Your task to perform on an android device: Open Android settings Image 0: 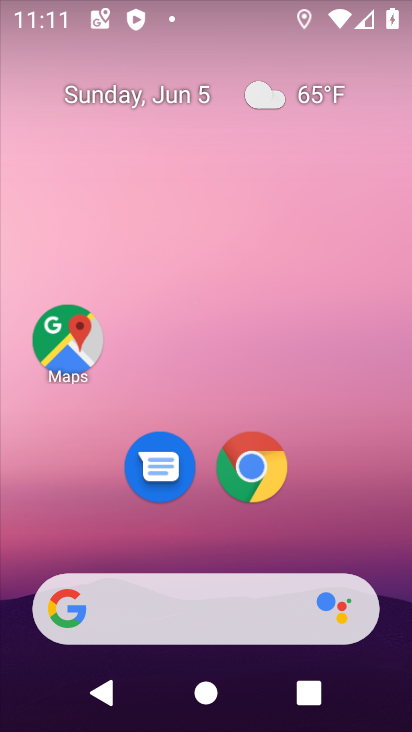
Step 0: press home button
Your task to perform on an android device: Open Android settings Image 1: 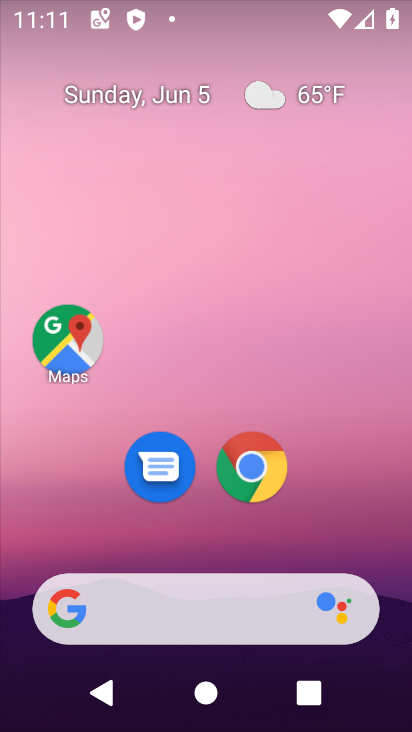
Step 1: drag from (377, 519) to (304, 5)
Your task to perform on an android device: Open Android settings Image 2: 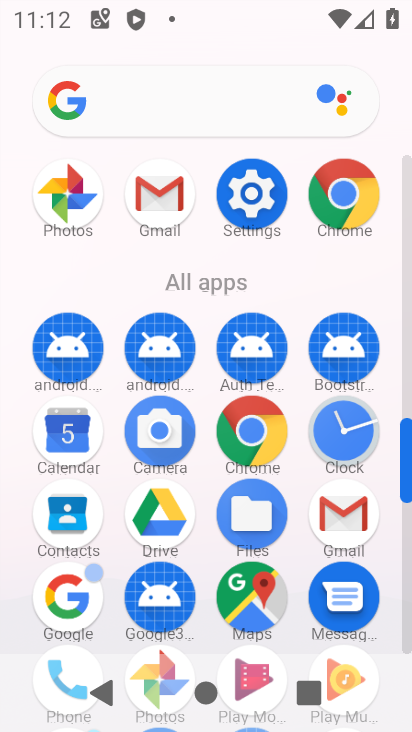
Step 2: drag from (292, 575) to (243, 312)
Your task to perform on an android device: Open Android settings Image 3: 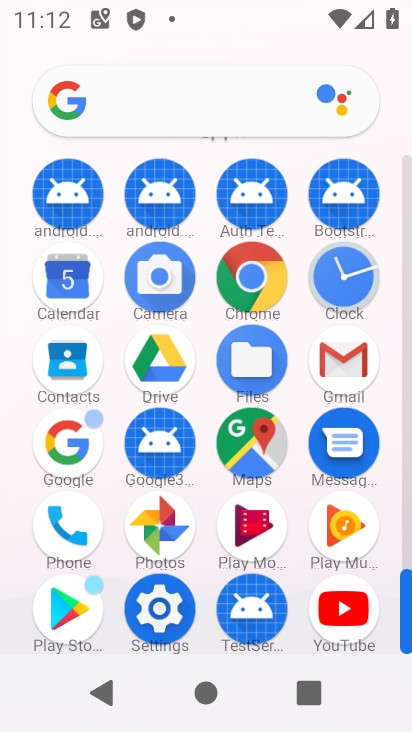
Step 3: click (146, 594)
Your task to perform on an android device: Open Android settings Image 4: 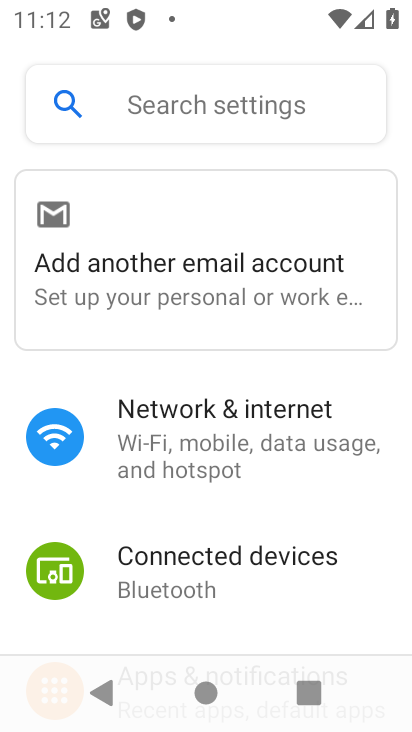
Step 4: drag from (286, 551) to (253, 304)
Your task to perform on an android device: Open Android settings Image 5: 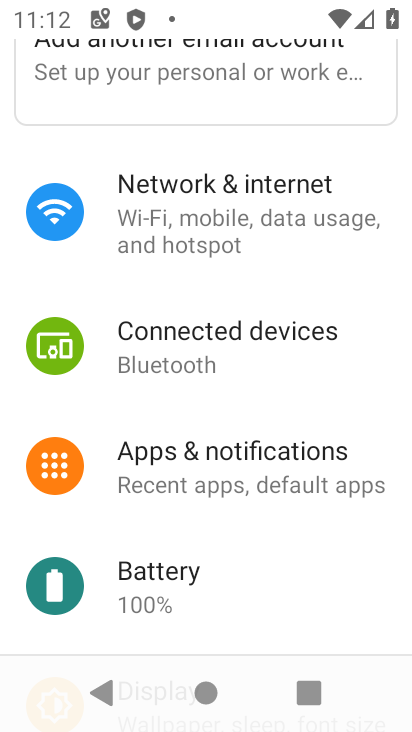
Step 5: drag from (208, 423) to (213, 480)
Your task to perform on an android device: Open Android settings Image 6: 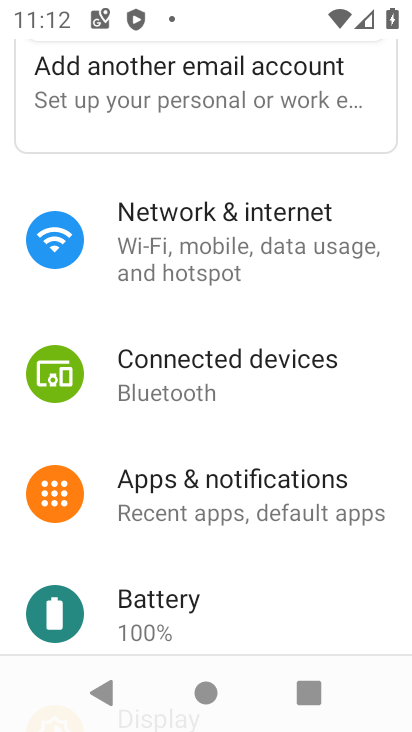
Step 6: drag from (230, 517) to (212, 372)
Your task to perform on an android device: Open Android settings Image 7: 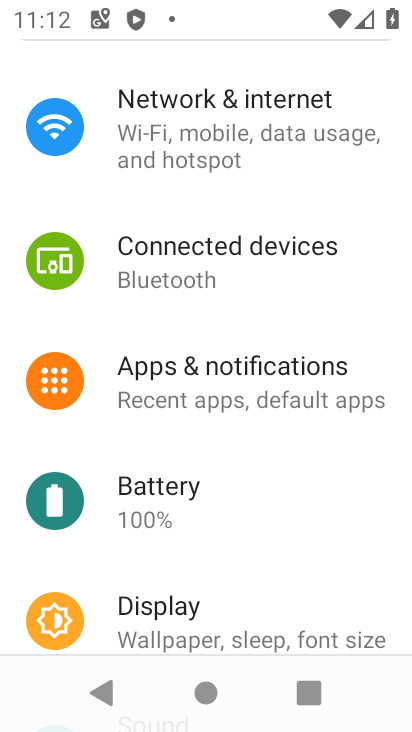
Step 7: click (117, 503)
Your task to perform on an android device: Open Android settings Image 8: 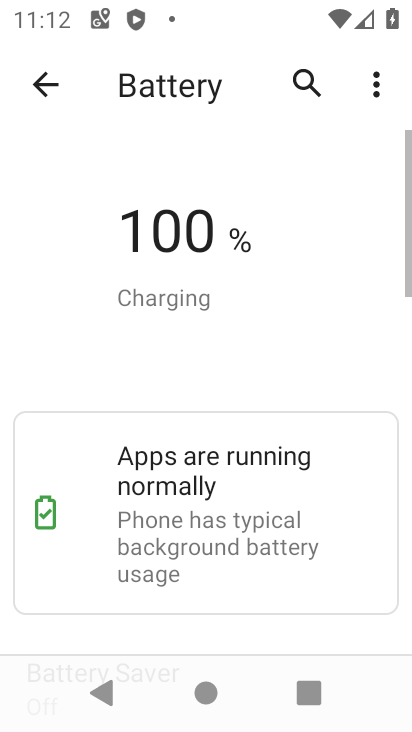
Step 8: click (38, 76)
Your task to perform on an android device: Open Android settings Image 9: 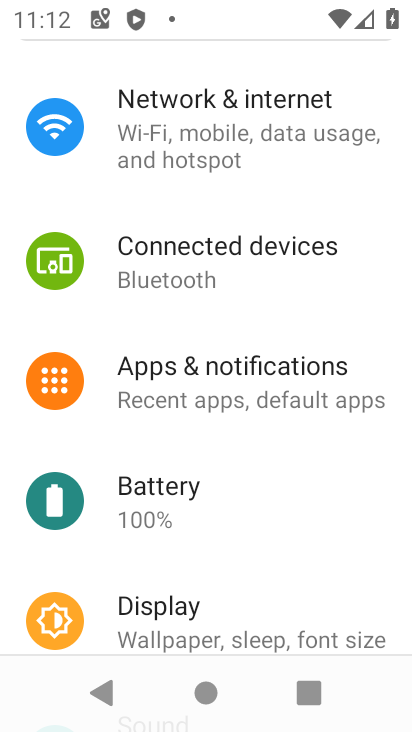
Step 9: drag from (366, 570) to (307, 9)
Your task to perform on an android device: Open Android settings Image 10: 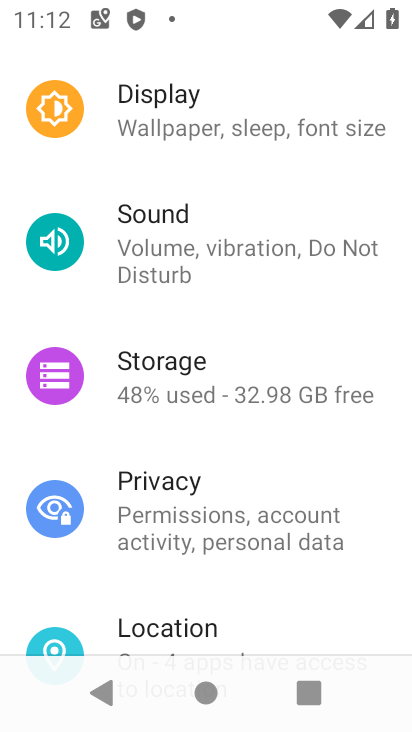
Step 10: drag from (307, 574) to (290, 321)
Your task to perform on an android device: Open Android settings Image 11: 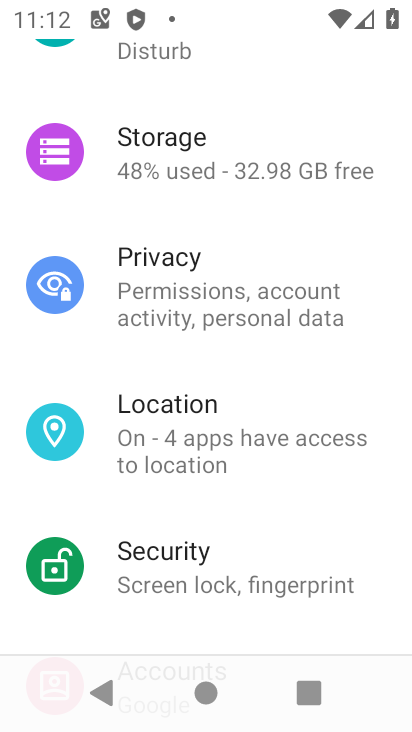
Step 11: drag from (270, 523) to (283, 314)
Your task to perform on an android device: Open Android settings Image 12: 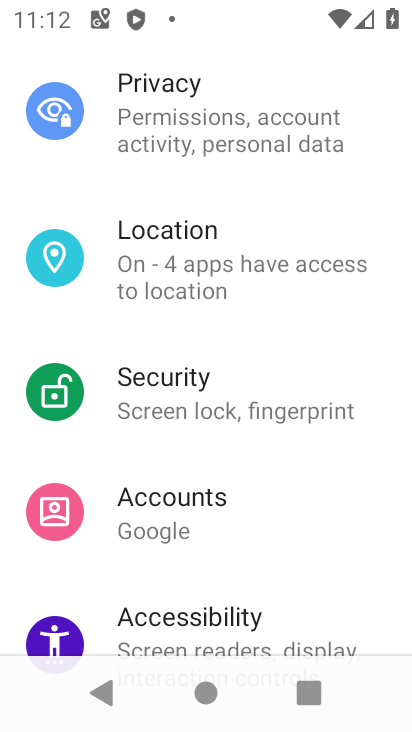
Step 12: drag from (240, 481) to (270, 308)
Your task to perform on an android device: Open Android settings Image 13: 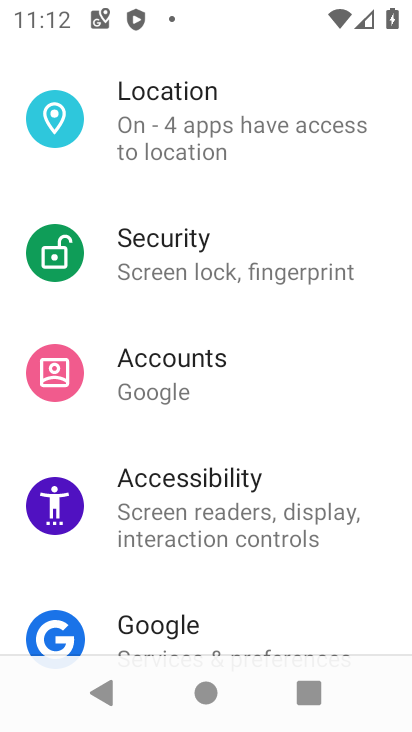
Step 13: drag from (145, 540) to (222, 414)
Your task to perform on an android device: Open Android settings Image 14: 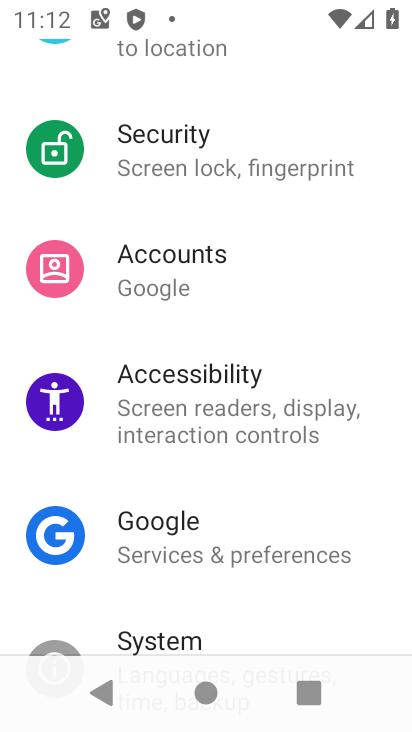
Step 14: drag from (137, 668) to (222, 303)
Your task to perform on an android device: Open Android settings Image 15: 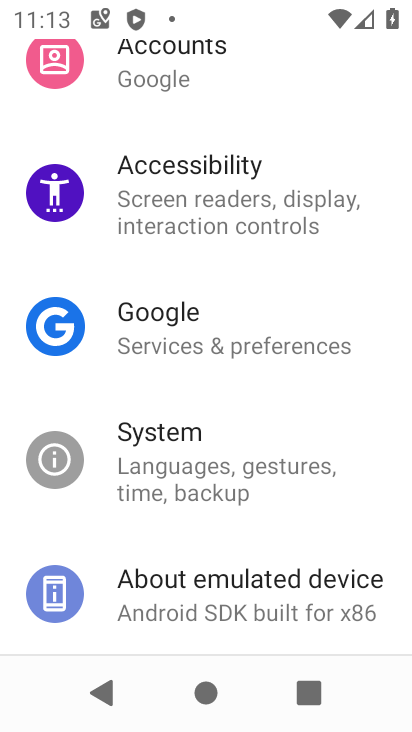
Step 15: click (131, 603)
Your task to perform on an android device: Open Android settings Image 16: 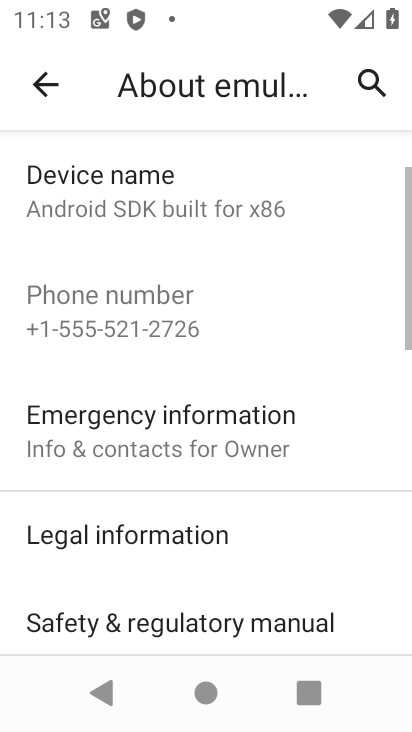
Step 16: drag from (181, 573) to (270, 197)
Your task to perform on an android device: Open Android settings Image 17: 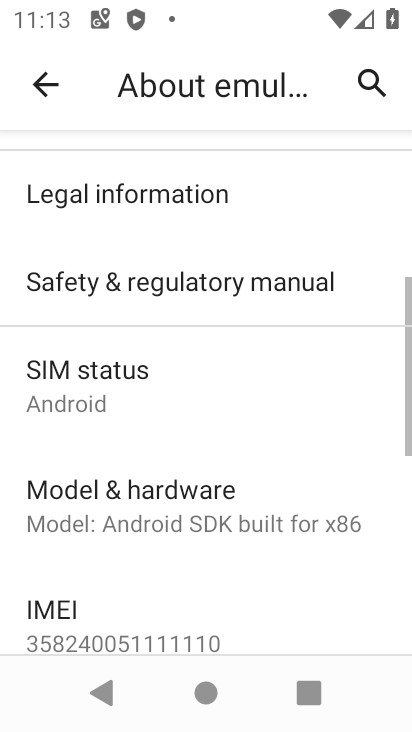
Step 17: drag from (133, 623) to (213, 351)
Your task to perform on an android device: Open Android settings Image 18: 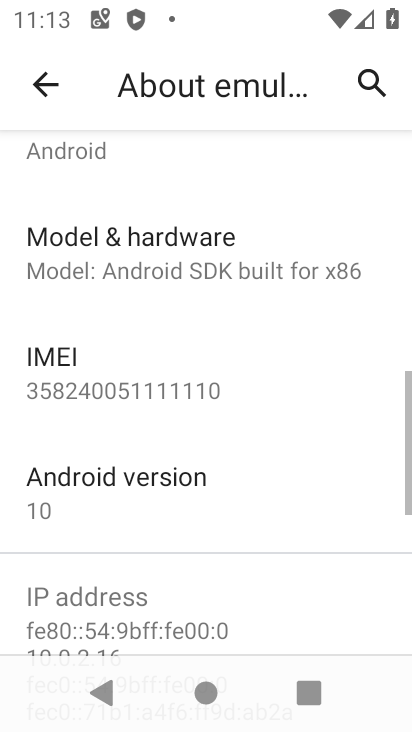
Step 18: drag from (111, 568) to (91, 514)
Your task to perform on an android device: Open Android settings Image 19: 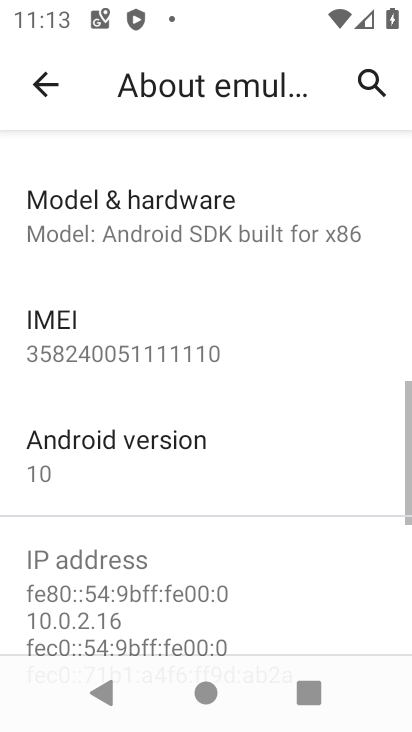
Step 19: click (78, 478)
Your task to perform on an android device: Open Android settings Image 20: 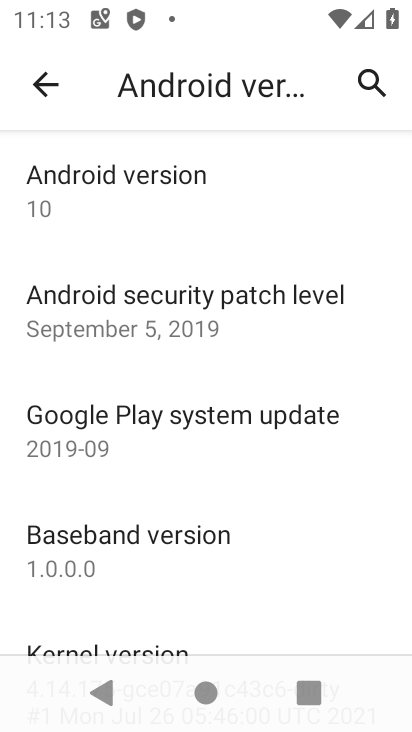
Step 20: task complete